Your task to perform on an android device: Open calendar and show me the second week of next month Image 0: 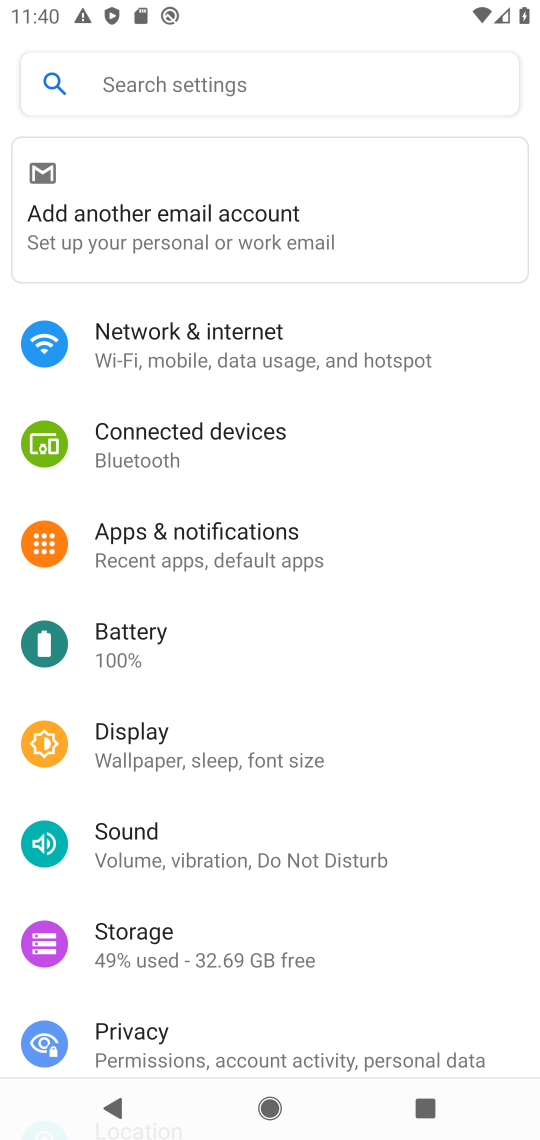
Step 0: press home button
Your task to perform on an android device: Open calendar and show me the second week of next month Image 1: 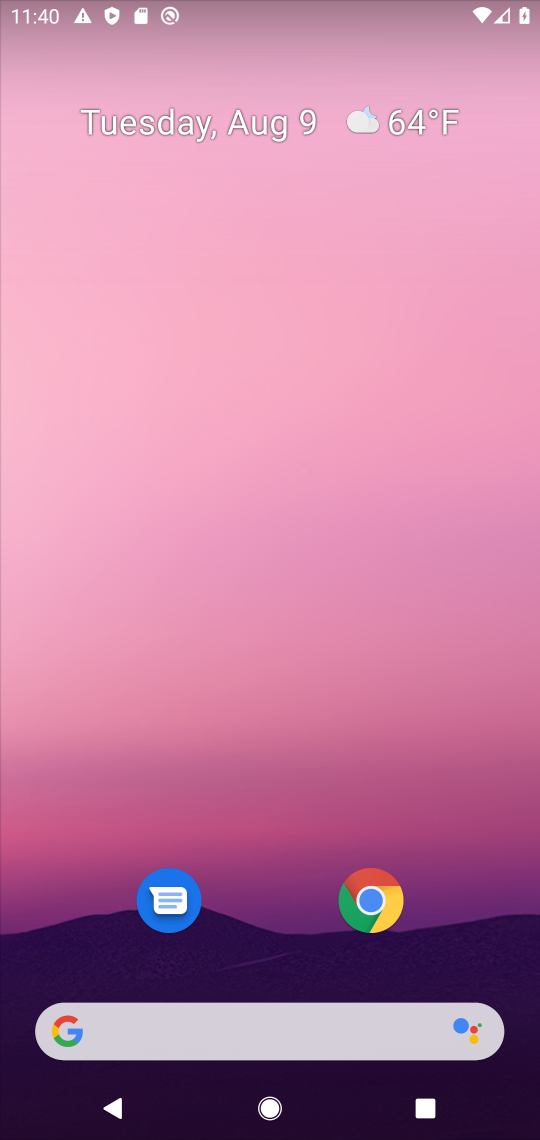
Step 1: drag from (291, 887) to (348, 52)
Your task to perform on an android device: Open calendar and show me the second week of next month Image 2: 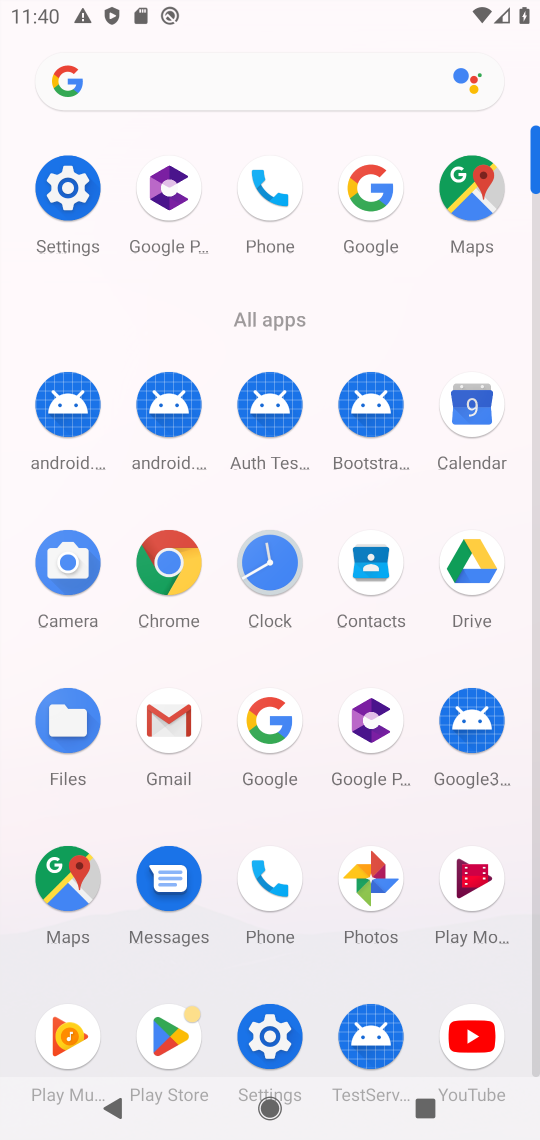
Step 2: click (460, 397)
Your task to perform on an android device: Open calendar and show me the second week of next month Image 3: 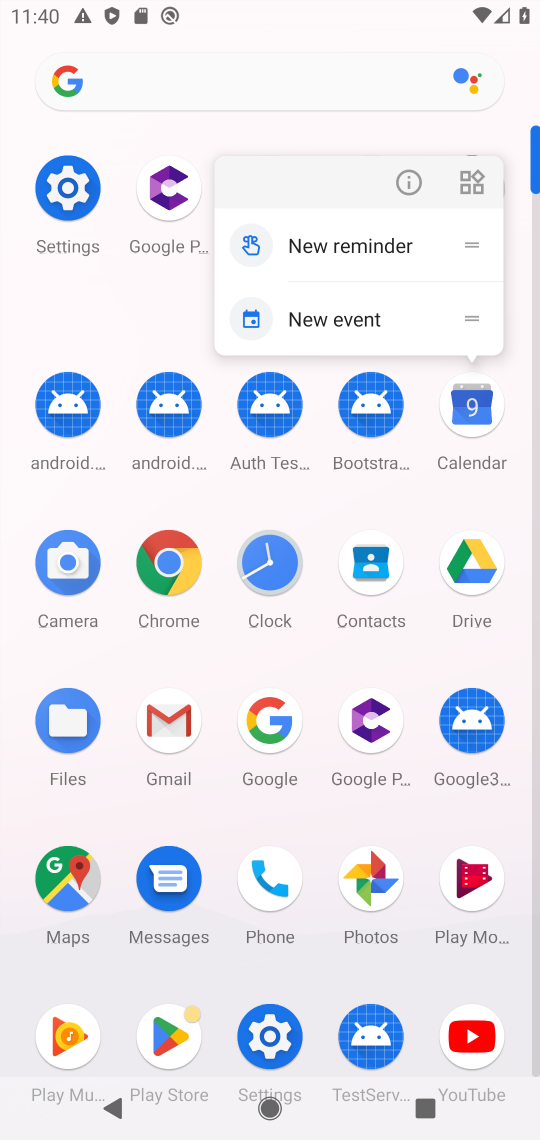
Step 3: click (473, 406)
Your task to perform on an android device: Open calendar and show me the second week of next month Image 4: 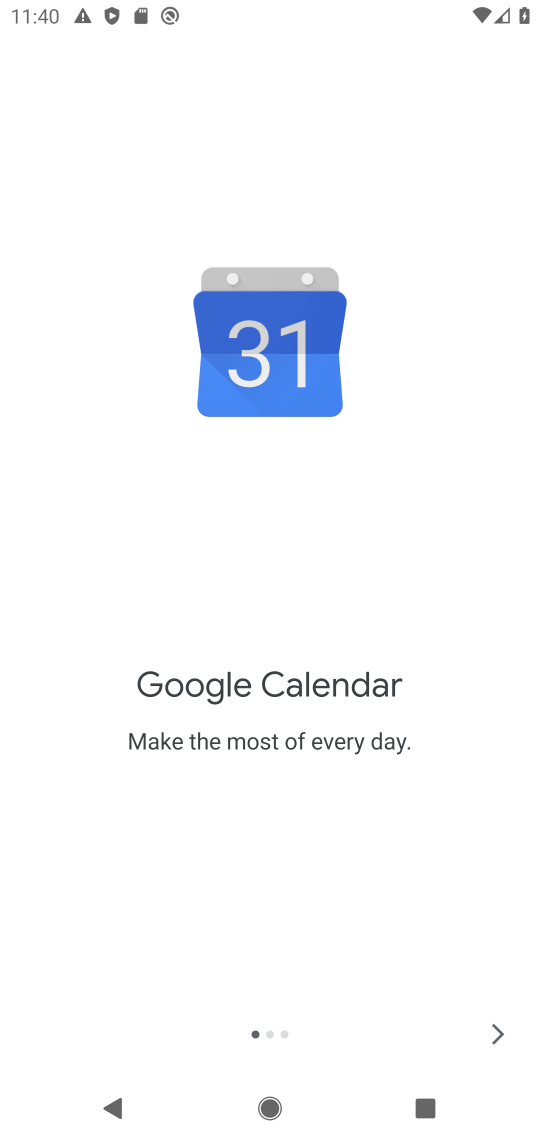
Step 4: click (487, 1040)
Your task to perform on an android device: Open calendar and show me the second week of next month Image 5: 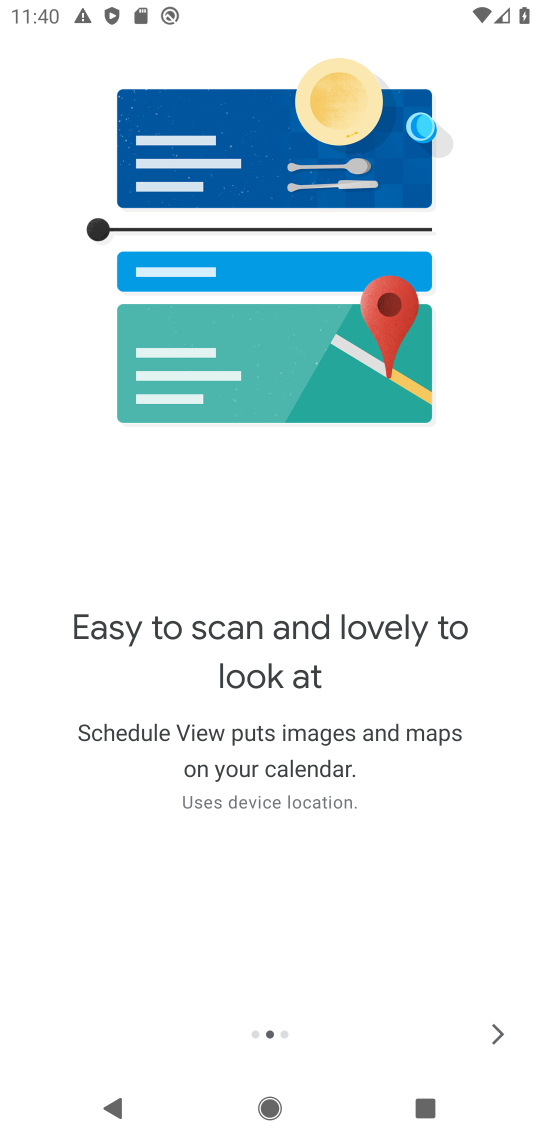
Step 5: click (502, 1030)
Your task to perform on an android device: Open calendar and show me the second week of next month Image 6: 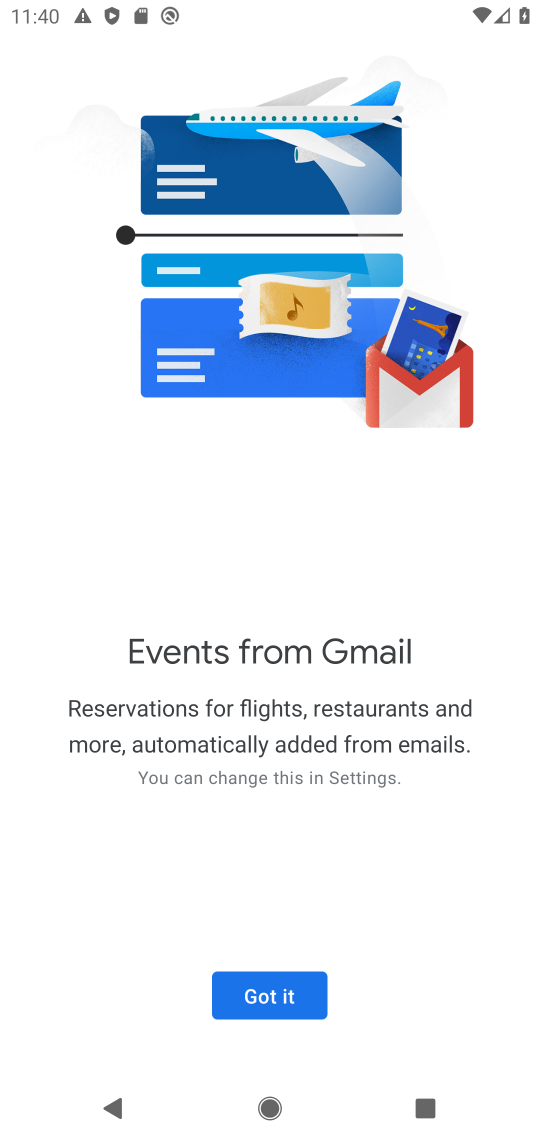
Step 6: click (298, 996)
Your task to perform on an android device: Open calendar and show me the second week of next month Image 7: 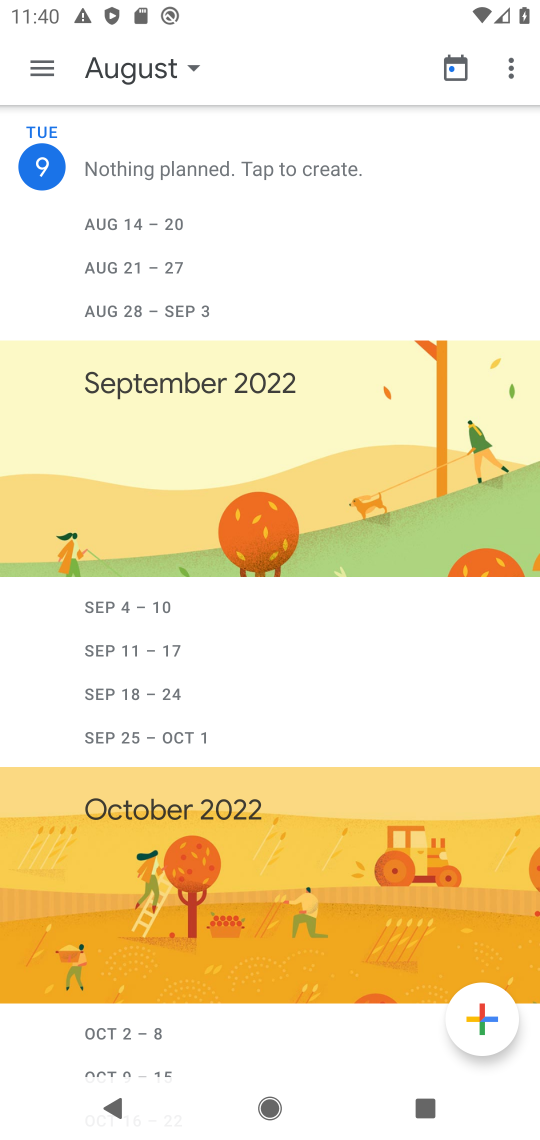
Step 7: click (41, 65)
Your task to perform on an android device: Open calendar and show me the second week of next month Image 8: 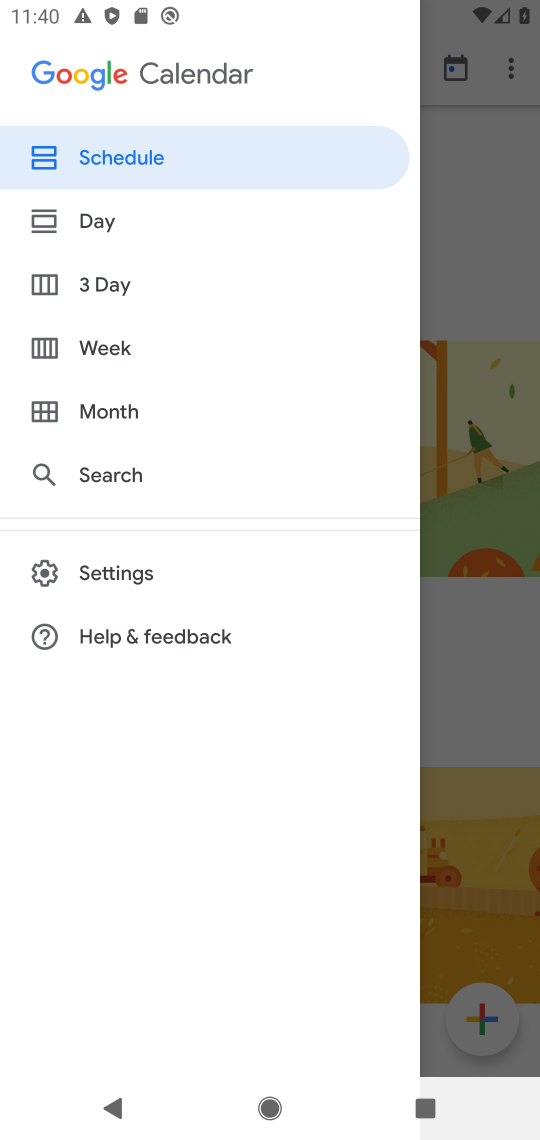
Step 8: click (96, 400)
Your task to perform on an android device: Open calendar and show me the second week of next month Image 9: 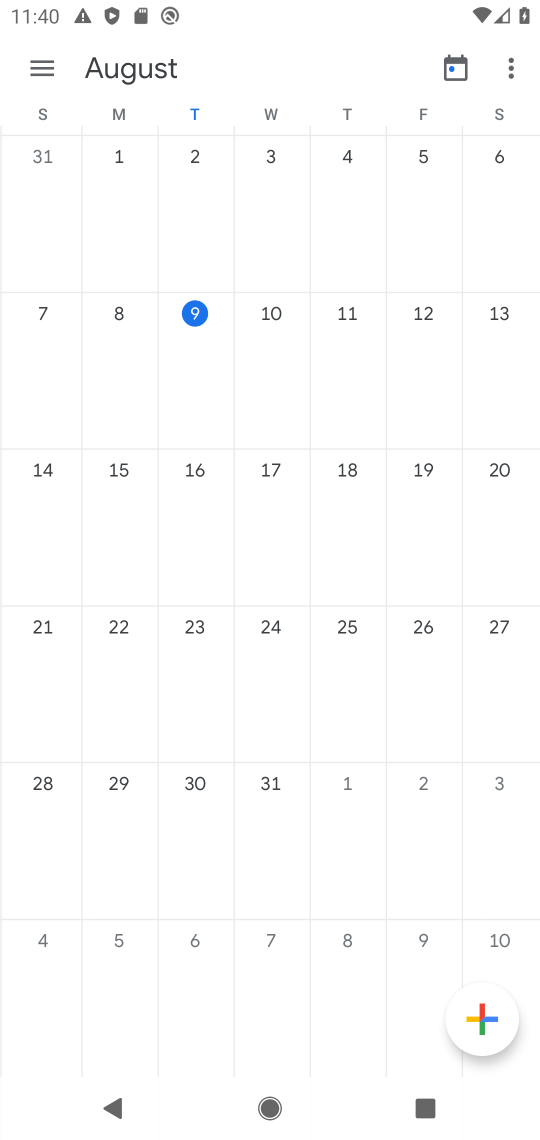
Step 9: drag from (500, 445) to (8, 546)
Your task to perform on an android device: Open calendar and show me the second week of next month Image 10: 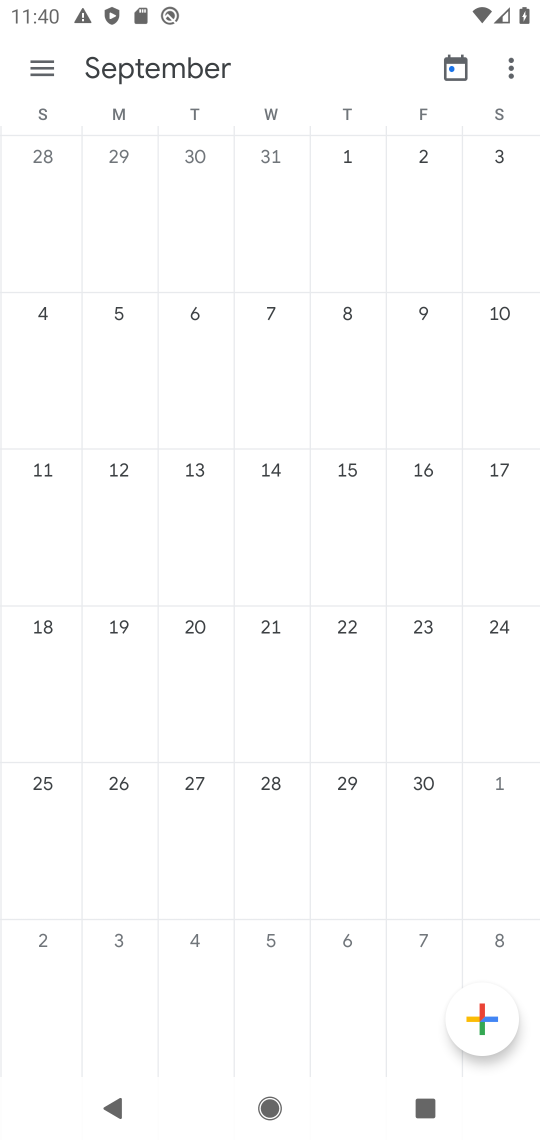
Step 10: click (51, 467)
Your task to perform on an android device: Open calendar and show me the second week of next month Image 11: 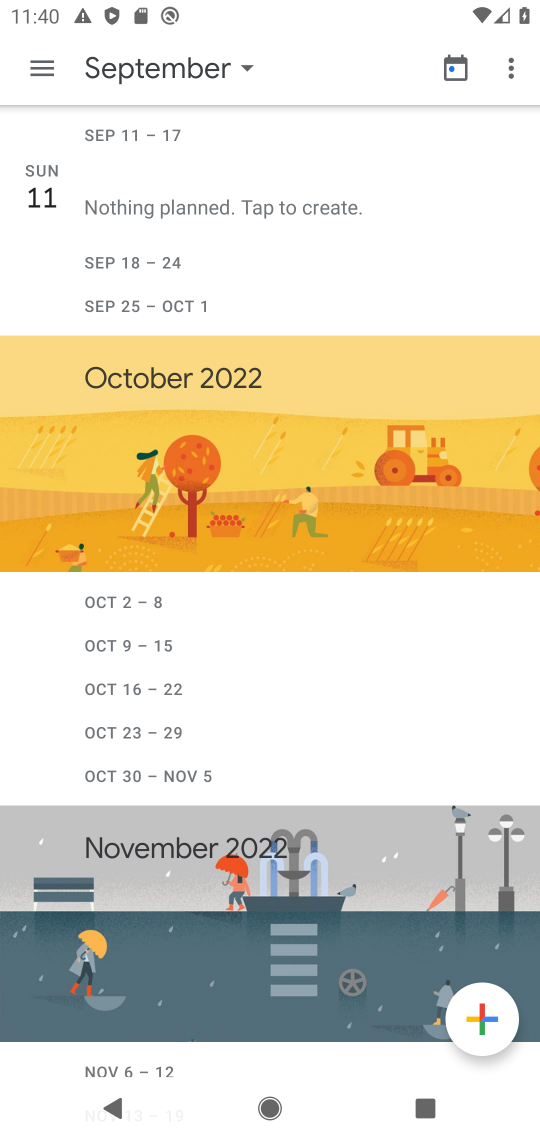
Step 11: click (40, 67)
Your task to perform on an android device: Open calendar and show me the second week of next month Image 12: 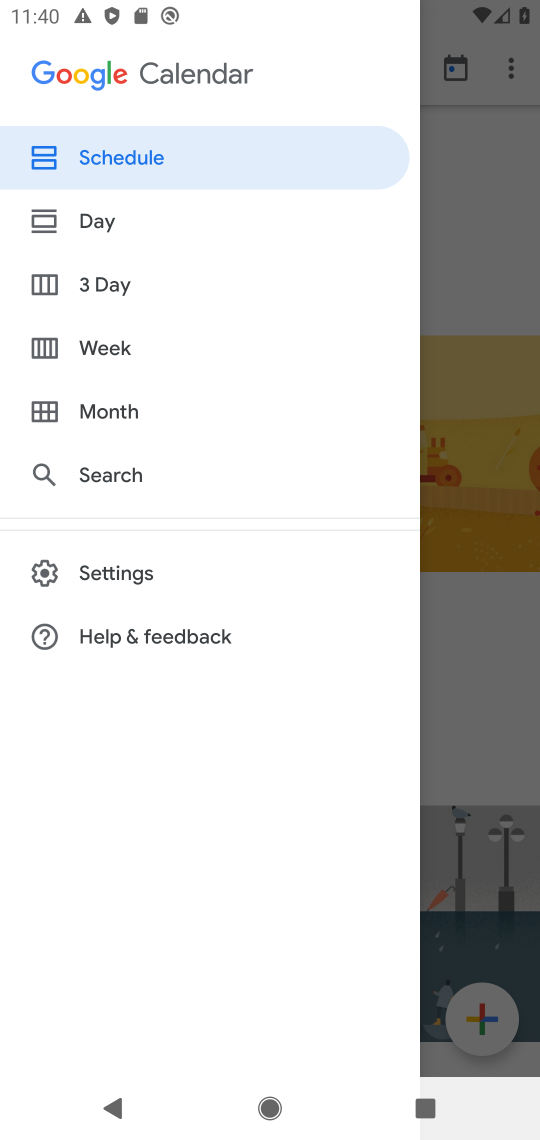
Step 12: click (50, 347)
Your task to perform on an android device: Open calendar and show me the second week of next month Image 13: 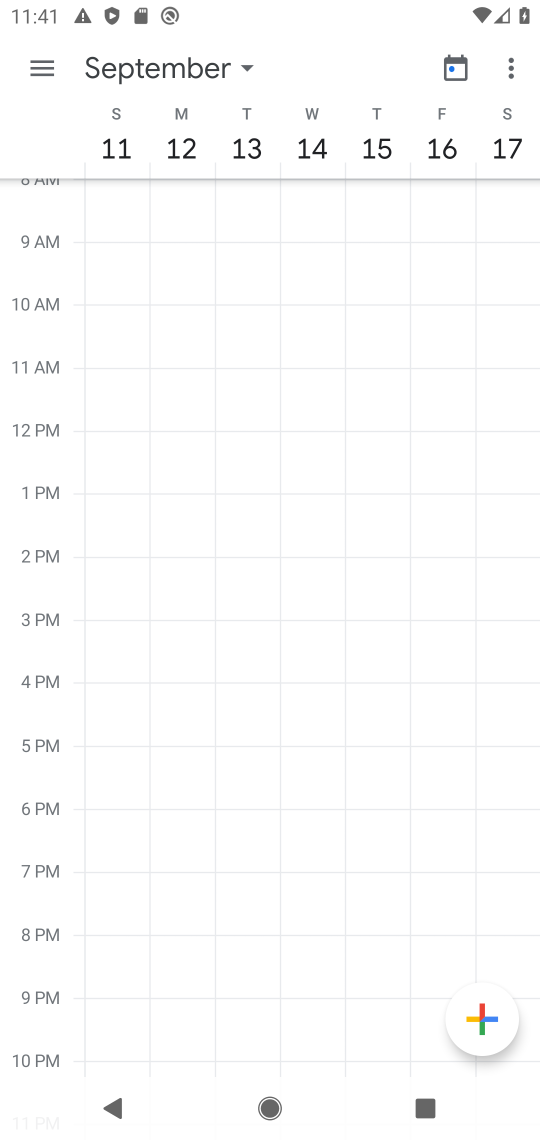
Step 13: task complete